Your task to perform on an android device: What's on my calendar tomorrow? Image 0: 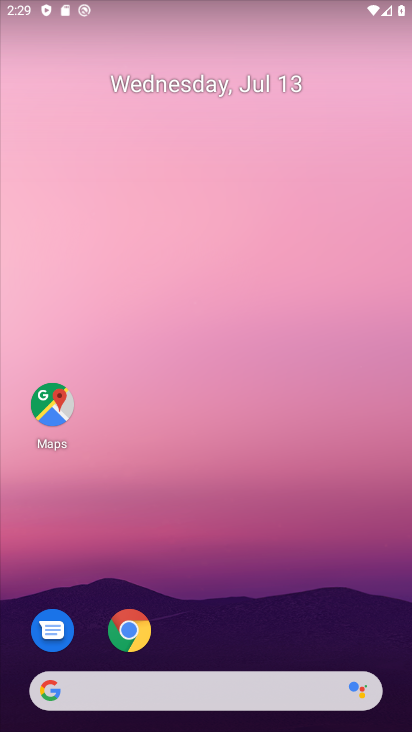
Step 0: drag from (304, 635) to (222, 138)
Your task to perform on an android device: What's on my calendar tomorrow? Image 1: 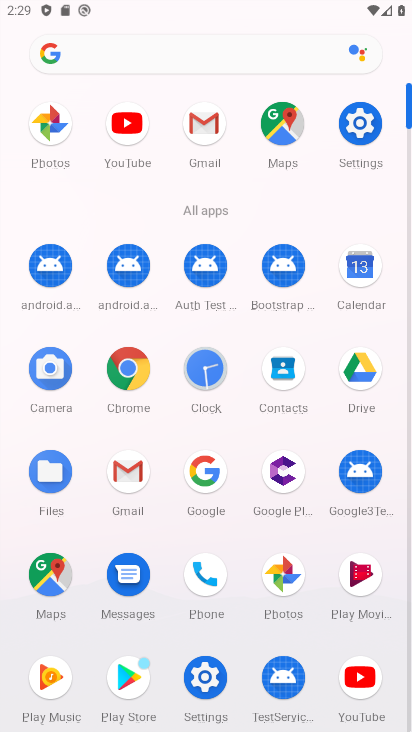
Step 1: click (364, 255)
Your task to perform on an android device: What's on my calendar tomorrow? Image 2: 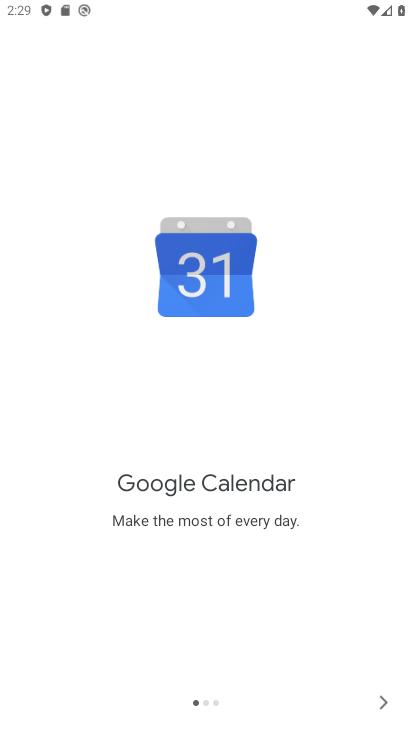
Step 2: click (377, 696)
Your task to perform on an android device: What's on my calendar tomorrow? Image 3: 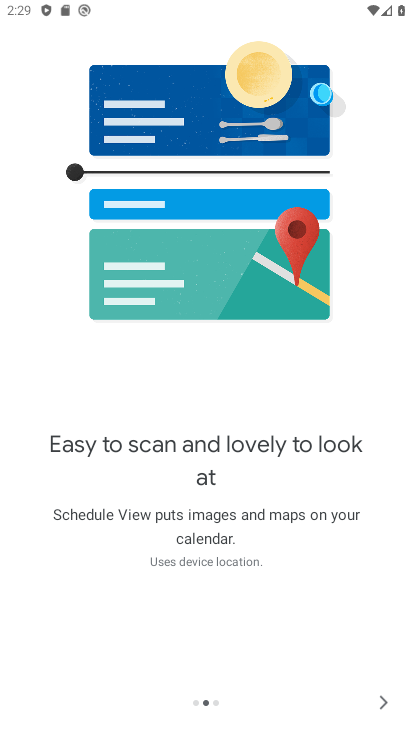
Step 3: click (379, 704)
Your task to perform on an android device: What's on my calendar tomorrow? Image 4: 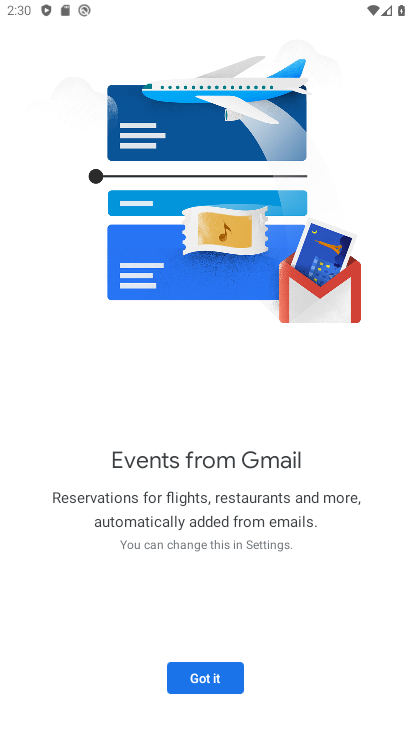
Step 4: click (224, 687)
Your task to perform on an android device: What's on my calendar tomorrow? Image 5: 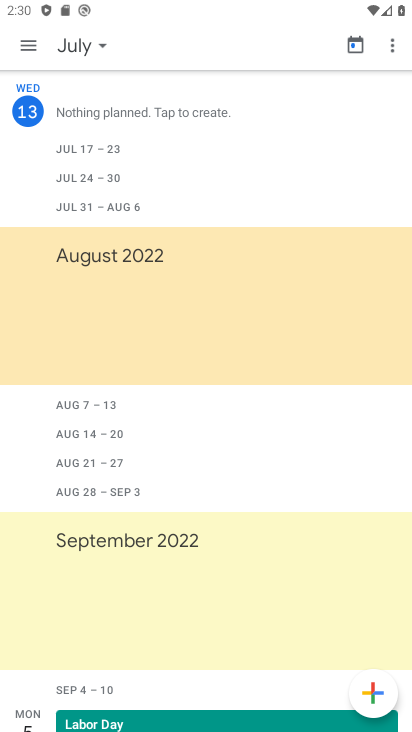
Step 5: click (26, 47)
Your task to perform on an android device: What's on my calendar tomorrow? Image 6: 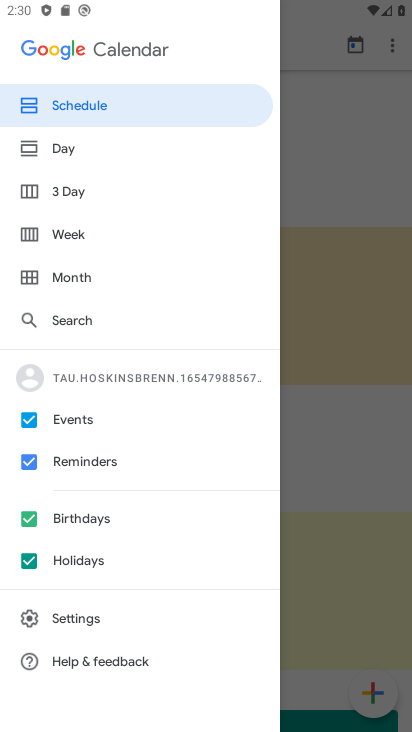
Step 6: click (63, 149)
Your task to perform on an android device: What's on my calendar tomorrow? Image 7: 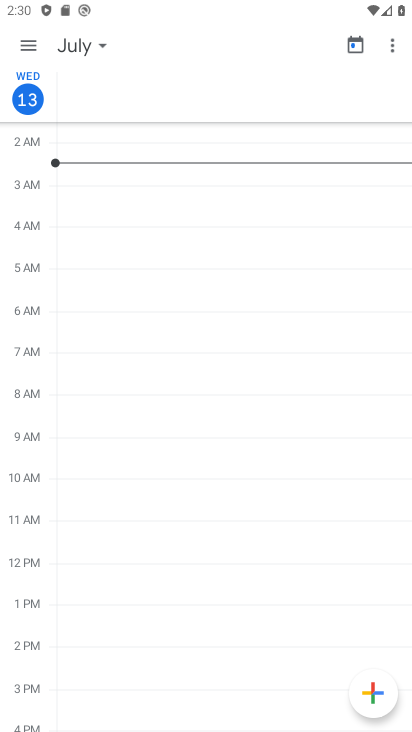
Step 7: task complete